Your task to perform on an android device: turn on notifications settings in the gmail app Image 0: 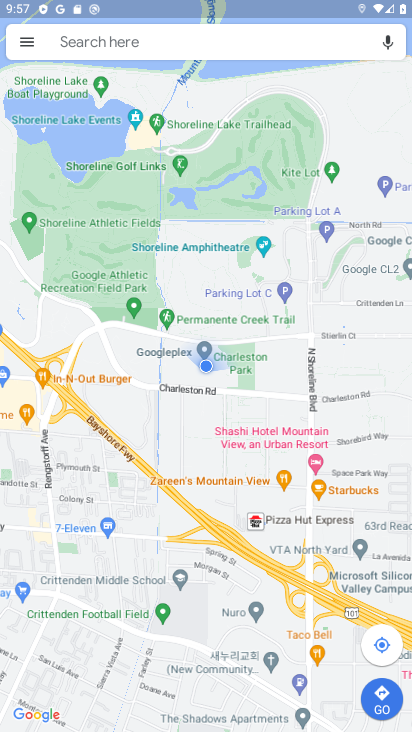
Step 0: press home button
Your task to perform on an android device: turn on notifications settings in the gmail app Image 1: 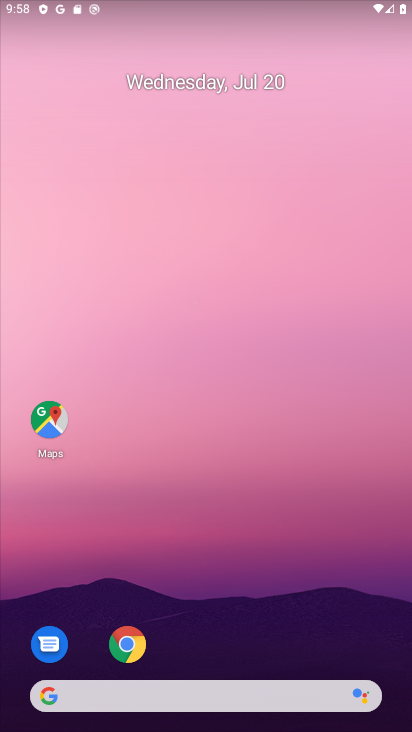
Step 1: drag from (211, 349) to (209, 140)
Your task to perform on an android device: turn on notifications settings in the gmail app Image 2: 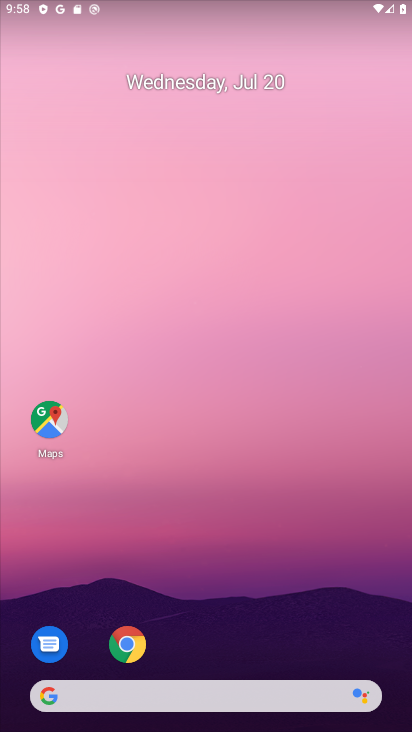
Step 2: drag from (254, 630) to (226, 132)
Your task to perform on an android device: turn on notifications settings in the gmail app Image 3: 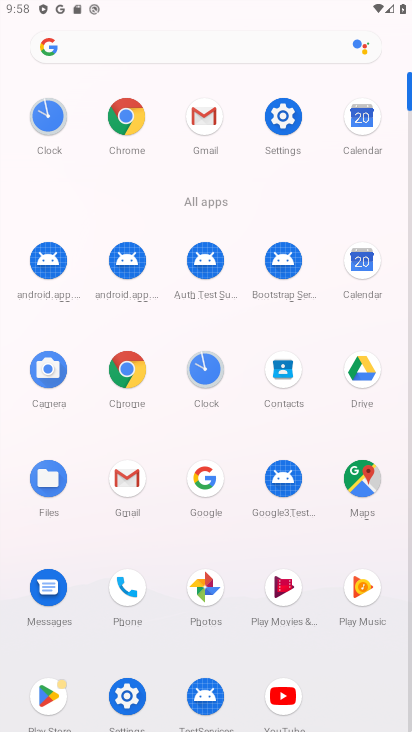
Step 3: click (121, 485)
Your task to perform on an android device: turn on notifications settings in the gmail app Image 4: 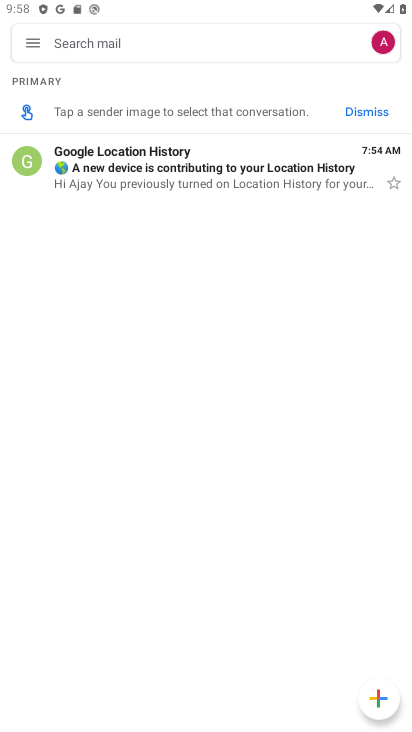
Step 4: click (33, 40)
Your task to perform on an android device: turn on notifications settings in the gmail app Image 5: 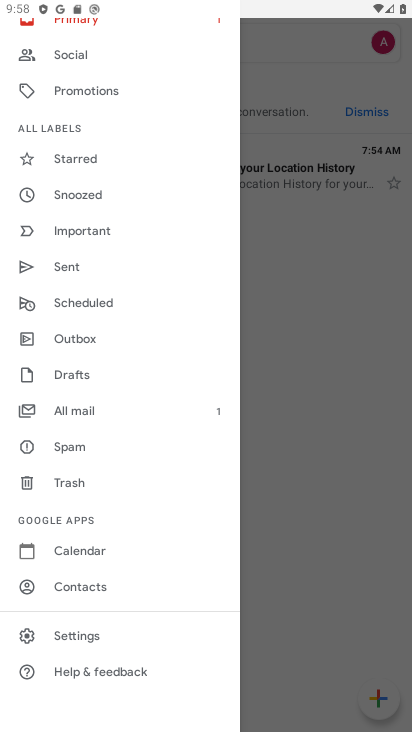
Step 5: drag from (176, 160) to (156, 473)
Your task to perform on an android device: turn on notifications settings in the gmail app Image 6: 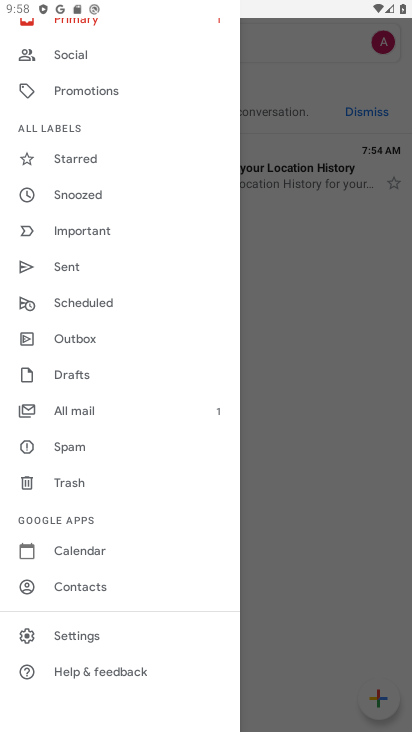
Step 6: drag from (136, 137) to (160, 517)
Your task to perform on an android device: turn on notifications settings in the gmail app Image 7: 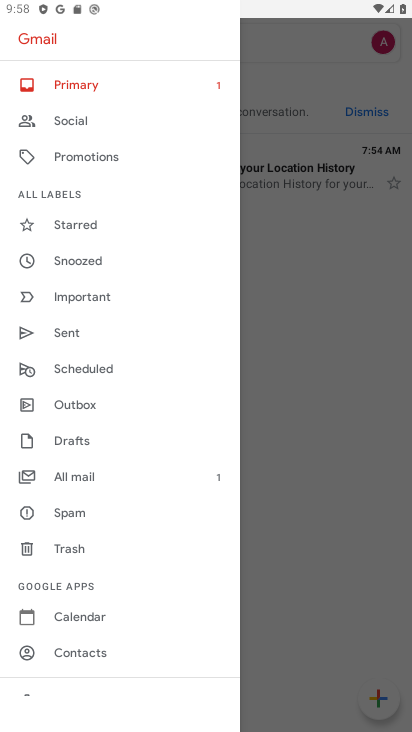
Step 7: click (293, 307)
Your task to perform on an android device: turn on notifications settings in the gmail app Image 8: 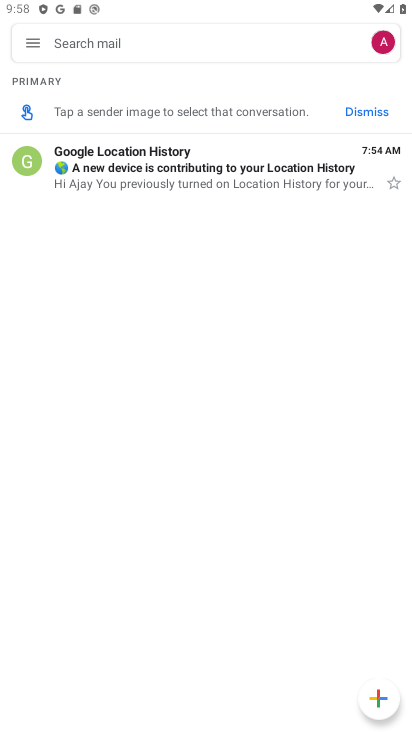
Step 8: task complete